Your task to perform on an android device: Open ESPN.com Image 0: 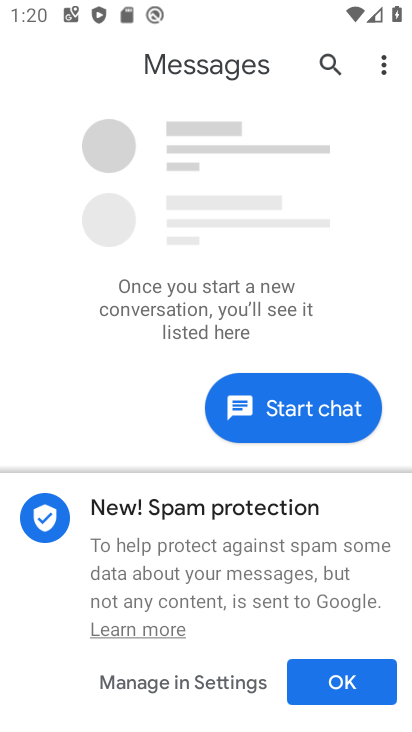
Step 0: press home button
Your task to perform on an android device: Open ESPN.com Image 1: 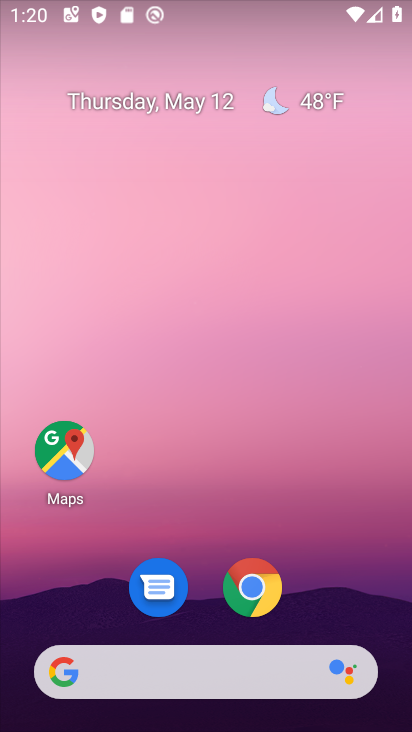
Step 1: drag from (285, 631) to (391, 201)
Your task to perform on an android device: Open ESPN.com Image 2: 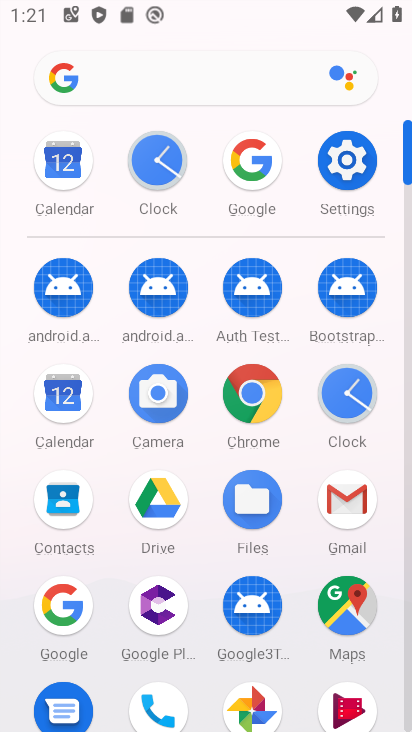
Step 2: click (281, 421)
Your task to perform on an android device: Open ESPN.com Image 3: 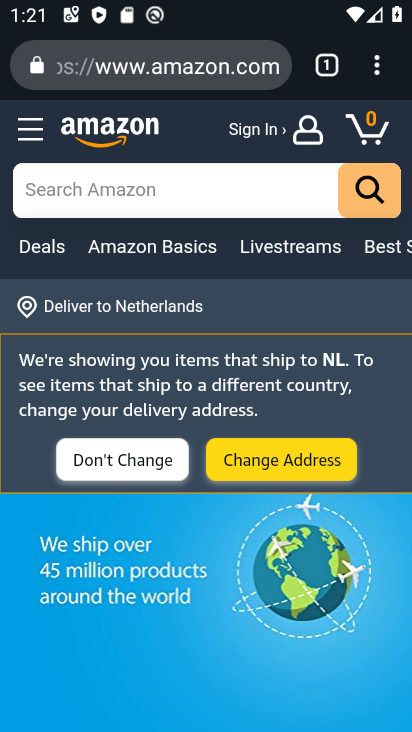
Step 3: click (212, 65)
Your task to perform on an android device: Open ESPN.com Image 4: 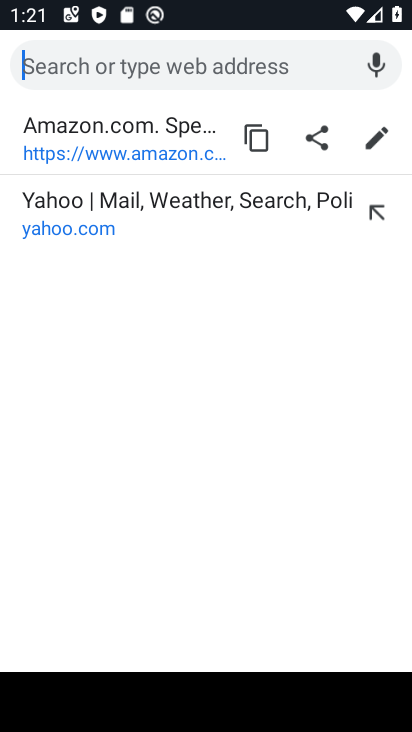
Step 4: type "espn.com"
Your task to perform on an android device: Open ESPN.com Image 5: 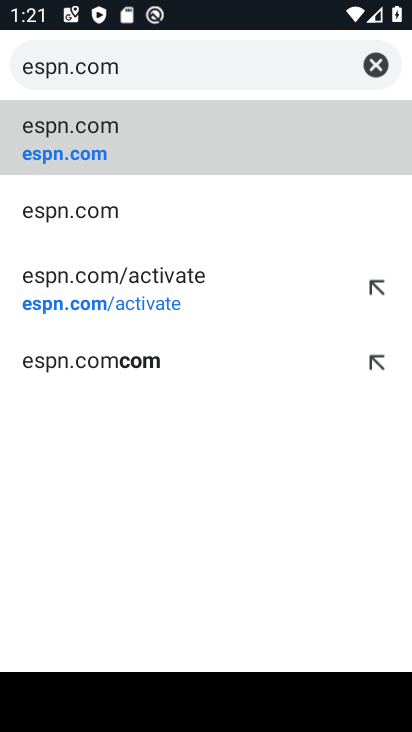
Step 5: click (363, 166)
Your task to perform on an android device: Open ESPN.com Image 6: 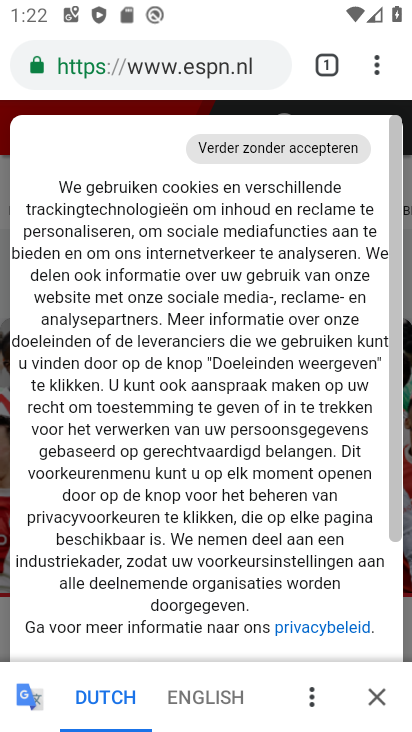
Step 6: task complete